Your task to perform on an android device: toggle javascript in the chrome app Image 0: 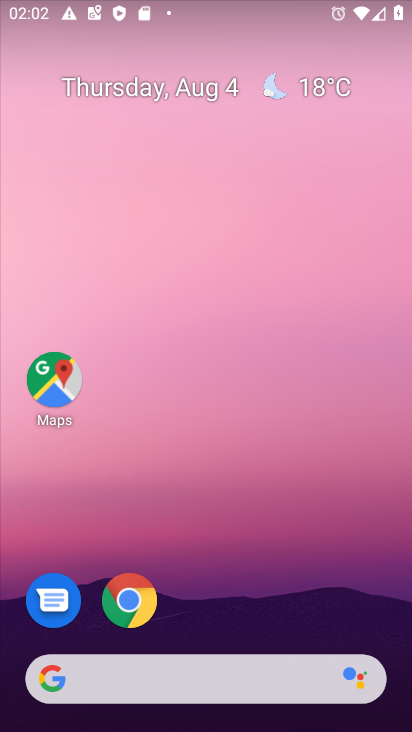
Step 0: press home button
Your task to perform on an android device: toggle javascript in the chrome app Image 1: 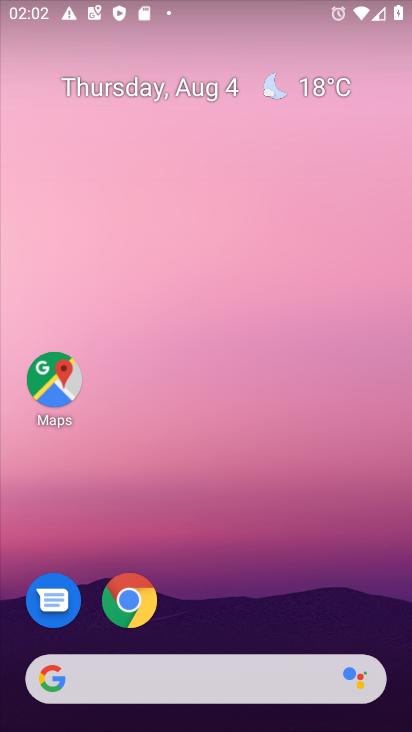
Step 1: click (134, 594)
Your task to perform on an android device: toggle javascript in the chrome app Image 2: 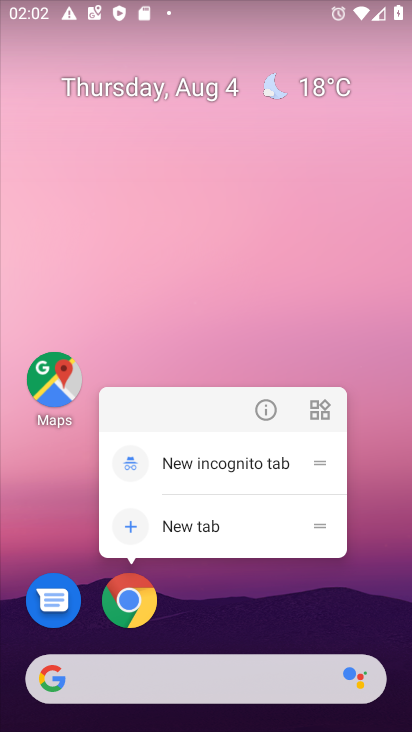
Step 2: click (117, 611)
Your task to perform on an android device: toggle javascript in the chrome app Image 3: 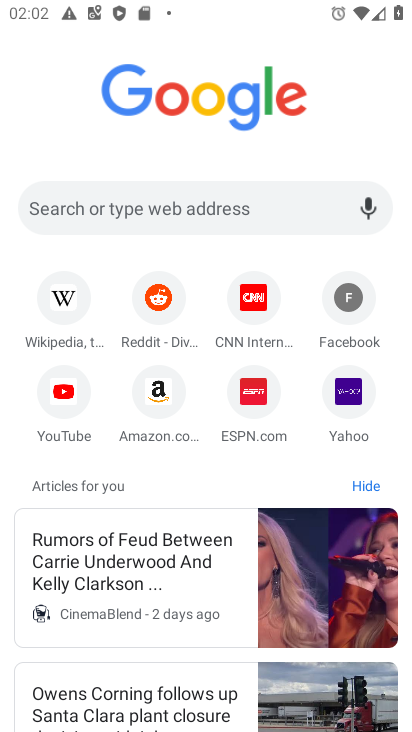
Step 3: drag from (337, 128) to (282, 456)
Your task to perform on an android device: toggle javascript in the chrome app Image 4: 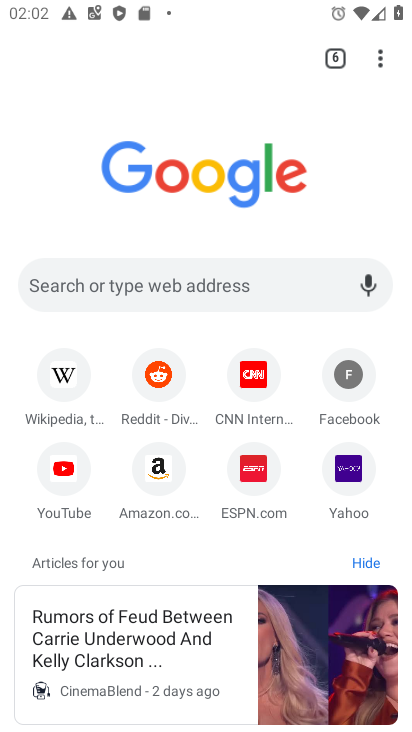
Step 4: drag from (379, 53) to (228, 550)
Your task to perform on an android device: toggle javascript in the chrome app Image 5: 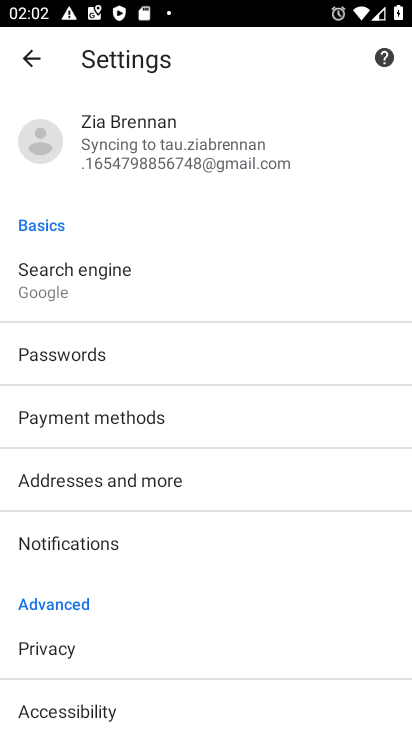
Step 5: drag from (200, 636) to (302, 287)
Your task to perform on an android device: toggle javascript in the chrome app Image 6: 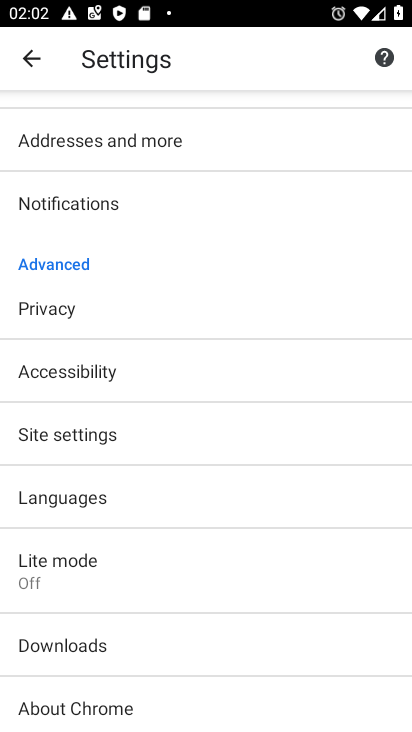
Step 6: click (117, 435)
Your task to perform on an android device: toggle javascript in the chrome app Image 7: 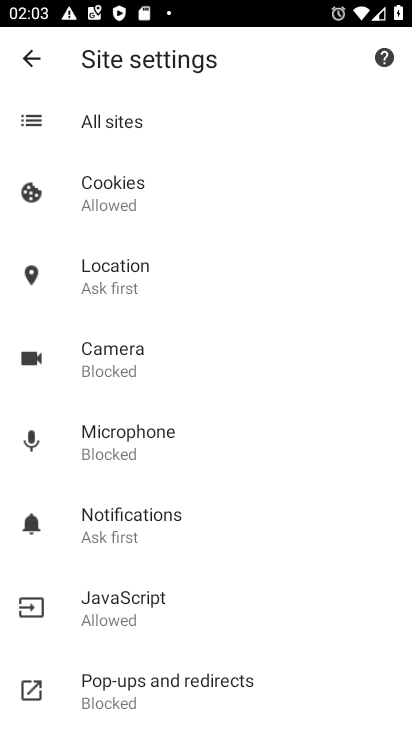
Step 7: click (139, 590)
Your task to perform on an android device: toggle javascript in the chrome app Image 8: 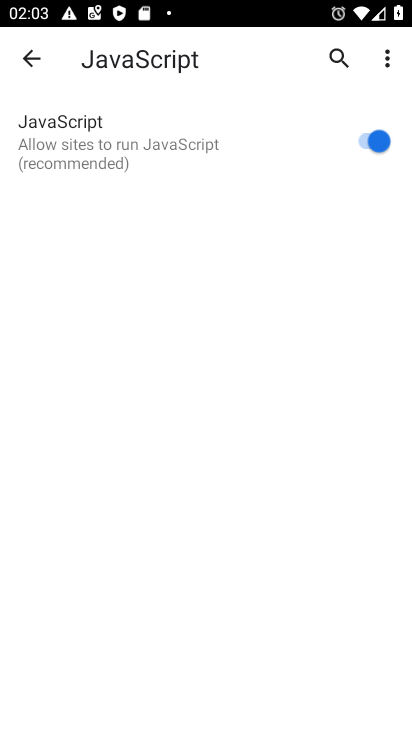
Step 8: click (362, 140)
Your task to perform on an android device: toggle javascript in the chrome app Image 9: 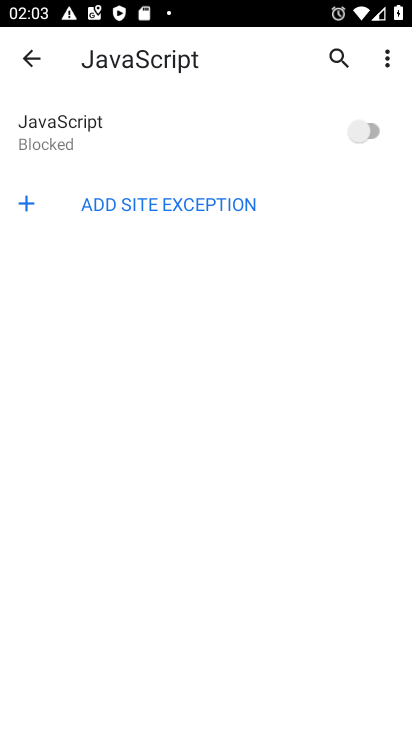
Step 9: task complete